Your task to perform on an android device: remove spam from my inbox in the gmail app Image 0: 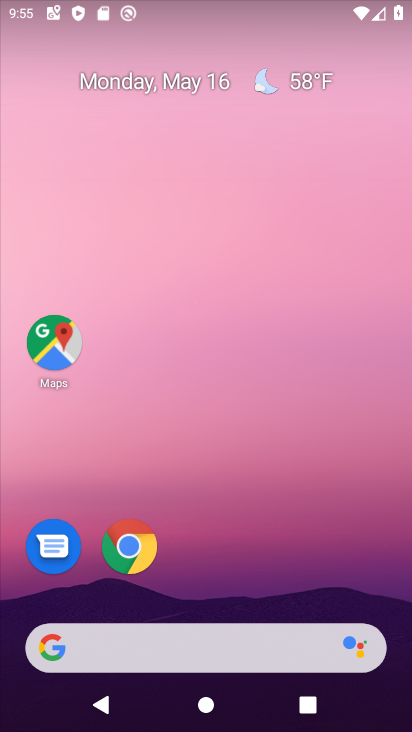
Step 0: drag from (227, 556) to (202, 171)
Your task to perform on an android device: remove spam from my inbox in the gmail app Image 1: 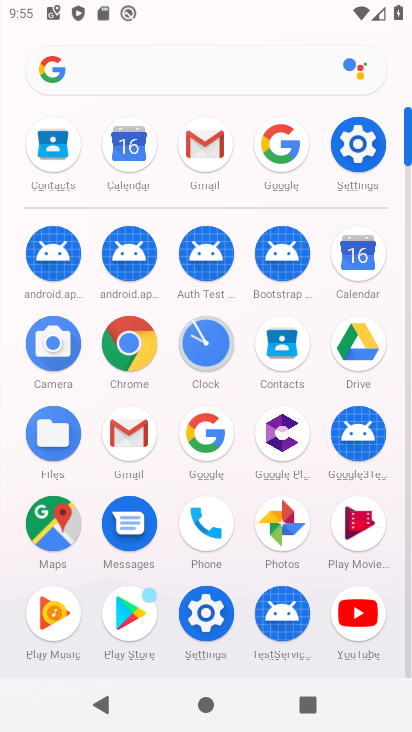
Step 1: click (205, 143)
Your task to perform on an android device: remove spam from my inbox in the gmail app Image 2: 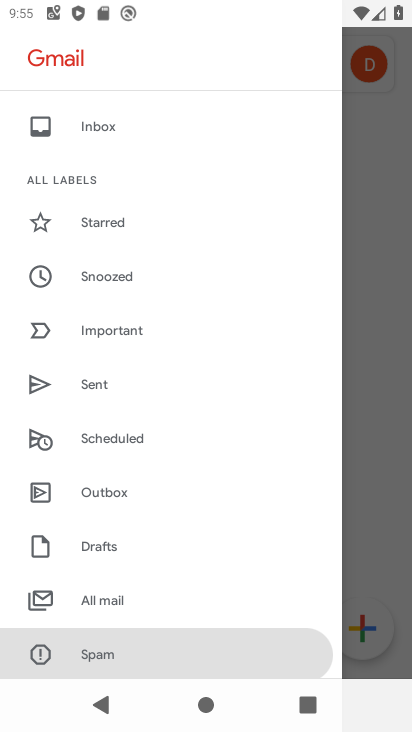
Step 2: drag from (149, 498) to (177, 425)
Your task to perform on an android device: remove spam from my inbox in the gmail app Image 3: 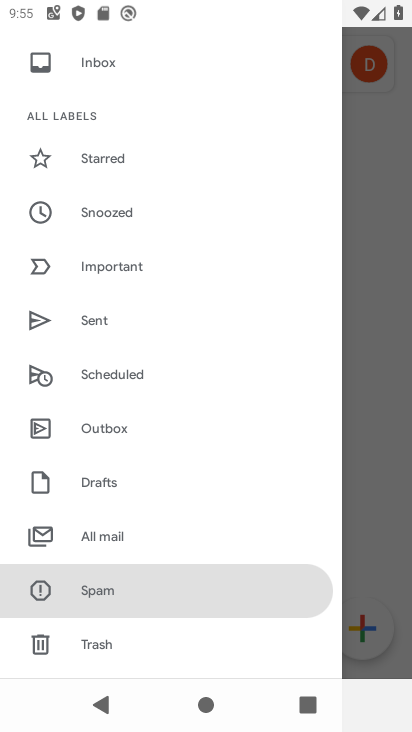
Step 3: click (106, 586)
Your task to perform on an android device: remove spam from my inbox in the gmail app Image 4: 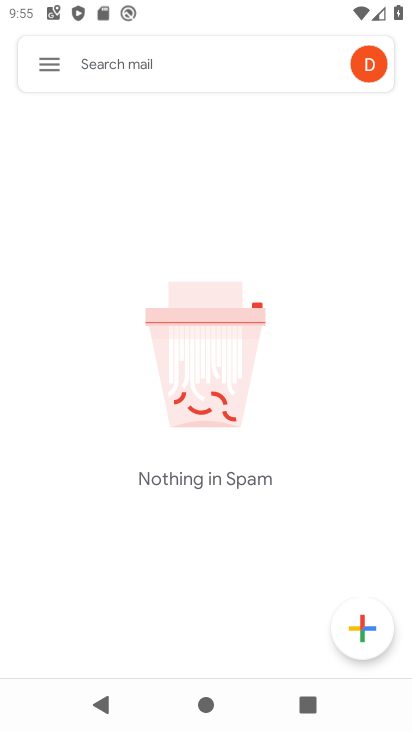
Step 4: task complete